Your task to perform on an android device: toggle airplane mode Image 0: 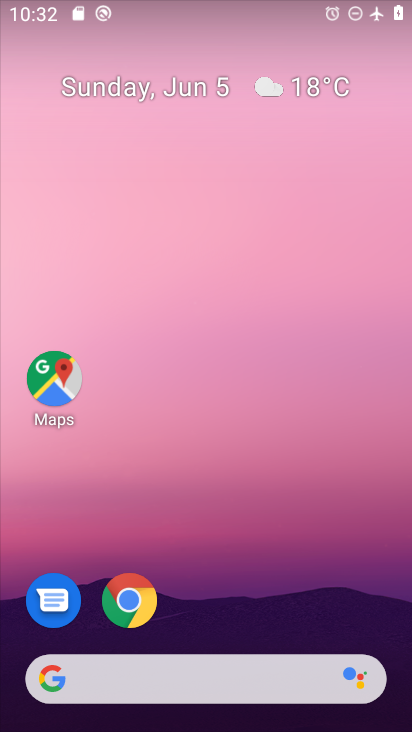
Step 0: drag from (265, 552) to (294, 1)
Your task to perform on an android device: toggle airplane mode Image 1: 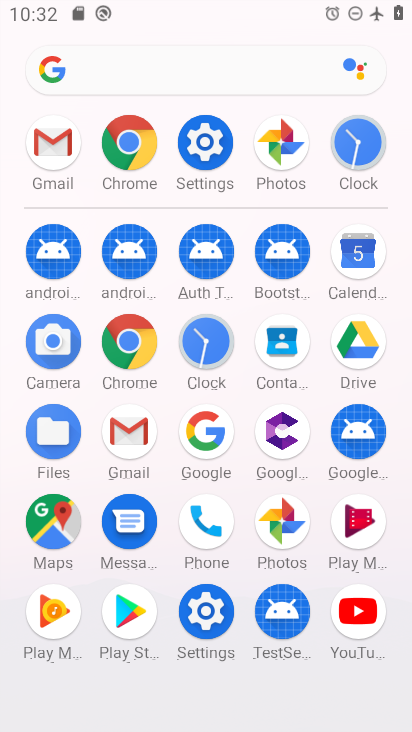
Step 1: click (221, 153)
Your task to perform on an android device: toggle airplane mode Image 2: 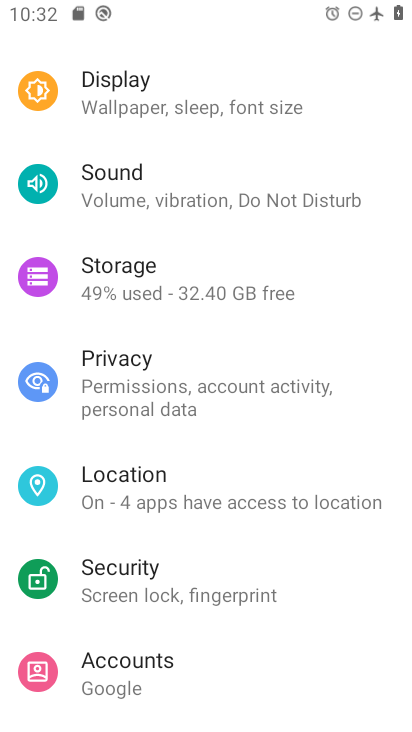
Step 2: drag from (236, 198) to (285, 718)
Your task to perform on an android device: toggle airplane mode Image 3: 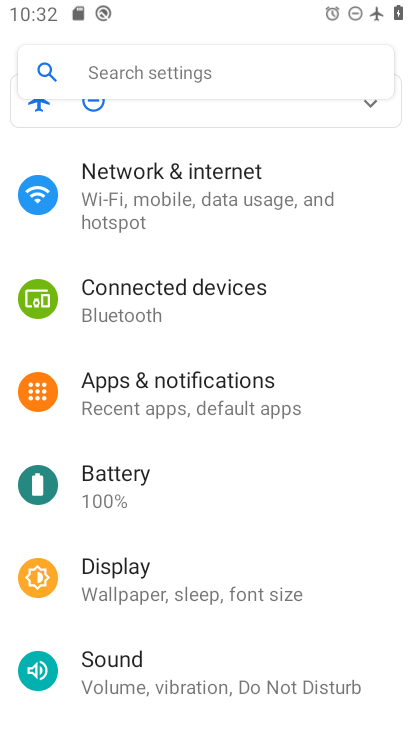
Step 3: click (201, 175)
Your task to perform on an android device: toggle airplane mode Image 4: 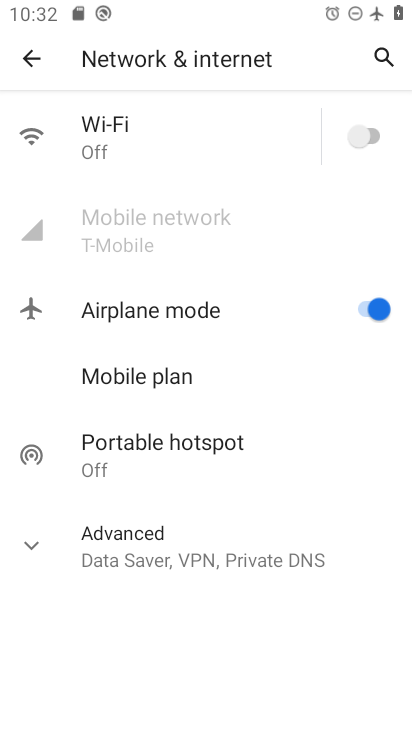
Step 4: click (366, 303)
Your task to perform on an android device: toggle airplane mode Image 5: 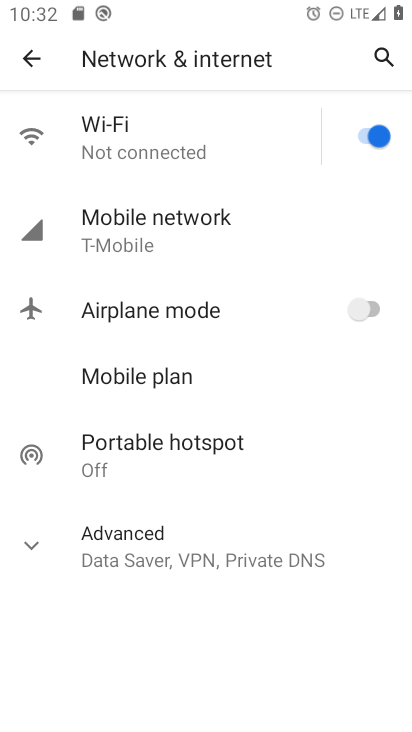
Step 5: task complete